Your task to perform on an android device: toggle airplane mode Image 0: 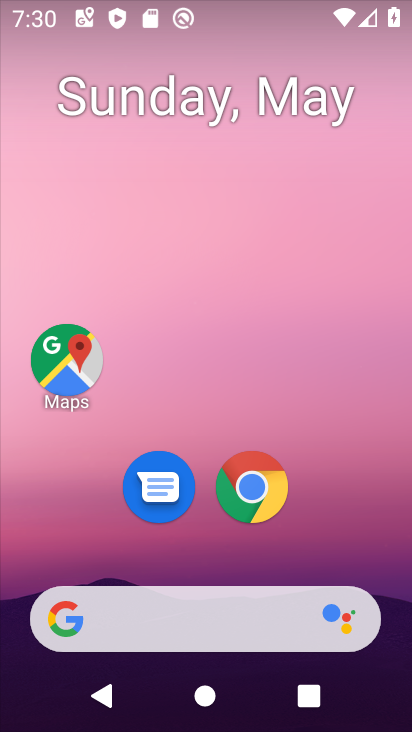
Step 0: drag from (366, 556) to (372, 204)
Your task to perform on an android device: toggle airplane mode Image 1: 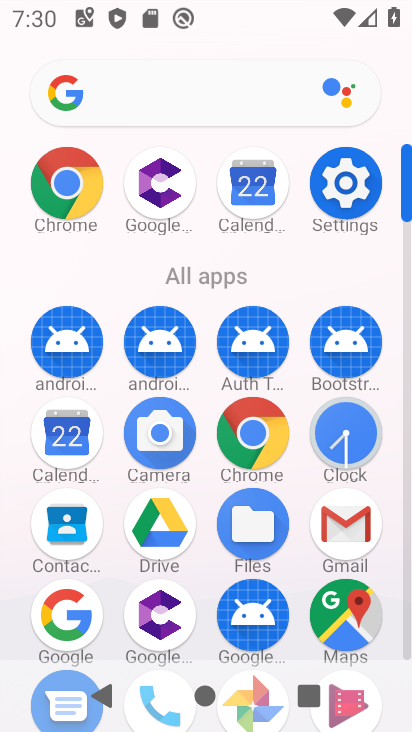
Step 1: click (356, 196)
Your task to perform on an android device: toggle airplane mode Image 2: 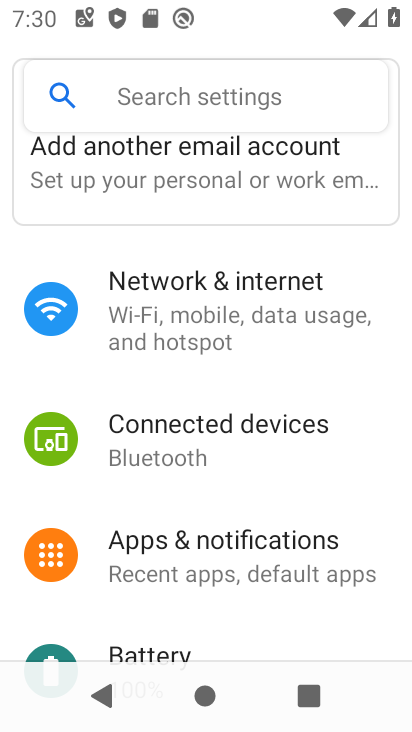
Step 2: drag from (390, 639) to (376, 541)
Your task to perform on an android device: toggle airplane mode Image 3: 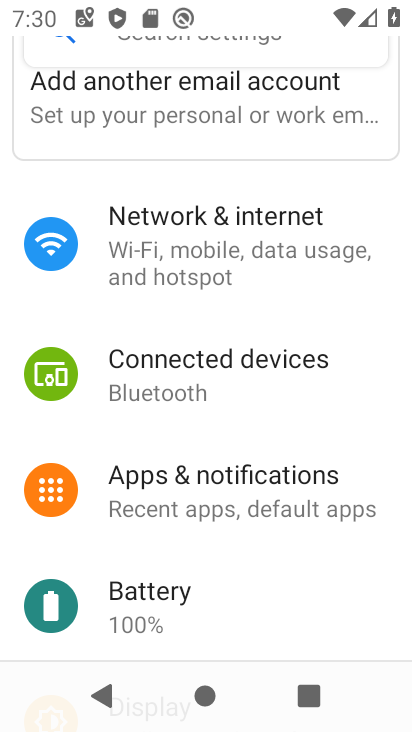
Step 3: drag from (374, 624) to (374, 478)
Your task to perform on an android device: toggle airplane mode Image 4: 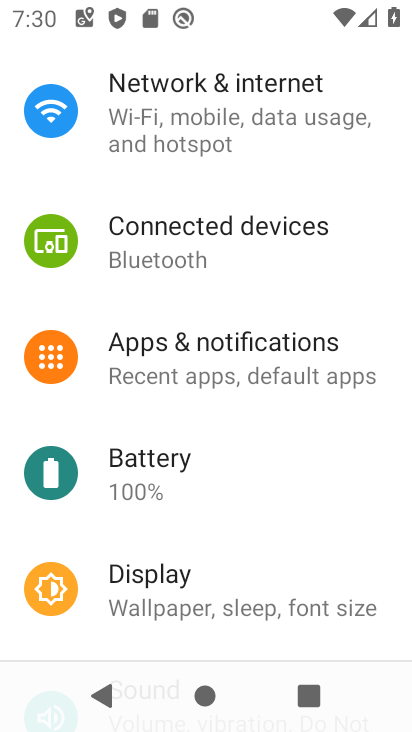
Step 4: drag from (386, 622) to (376, 482)
Your task to perform on an android device: toggle airplane mode Image 5: 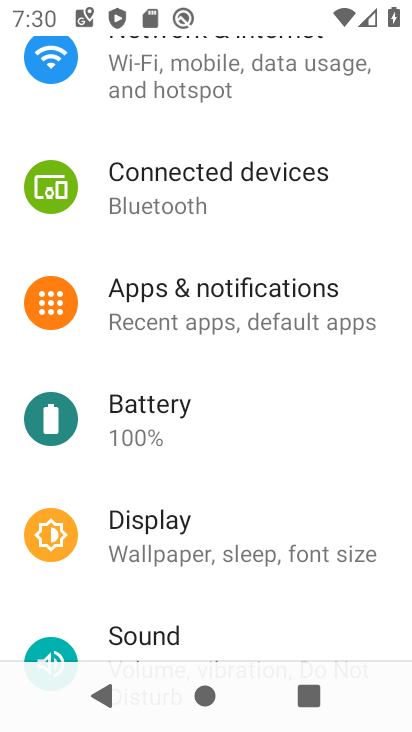
Step 5: drag from (371, 611) to (371, 507)
Your task to perform on an android device: toggle airplane mode Image 6: 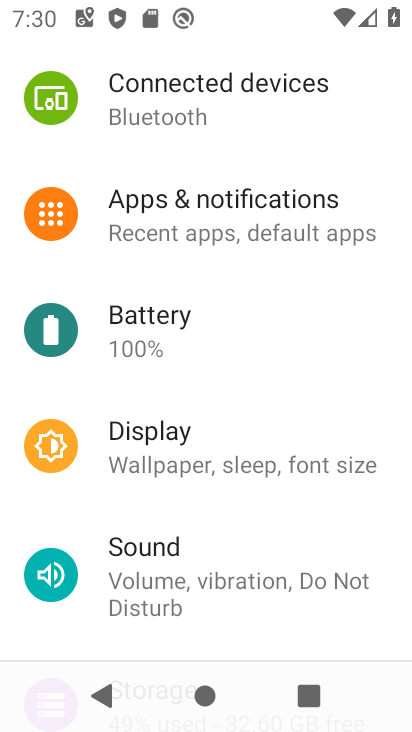
Step 6: drag from (386, 624) to (380, 517)
Your task to perform on an android device: toggle airplane mode Image 7: 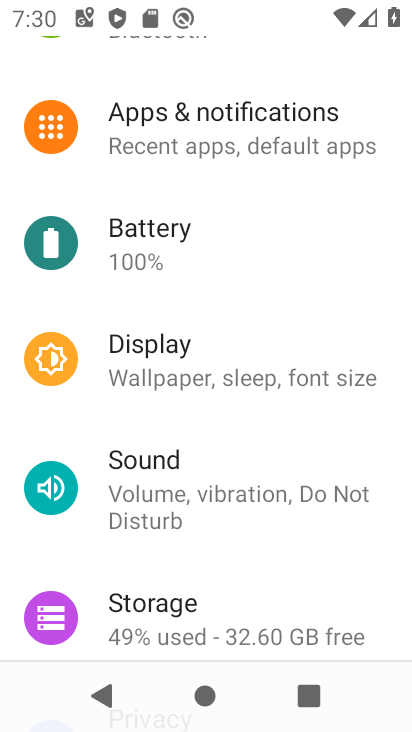
Step 7: drag from (376, 630) to (378, 514)
Your task to perform on an android device: toggle airplane mode Image 8: 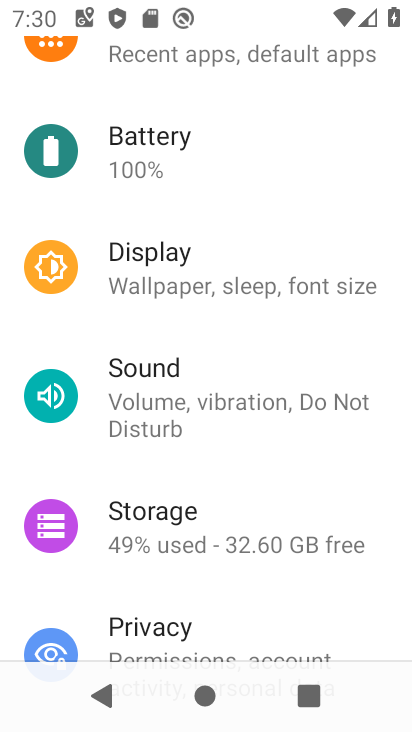
Step 8: drag from (372, 632) to (374, 526)
Your task to perform on an android device: toggle airplane mode Image 9: 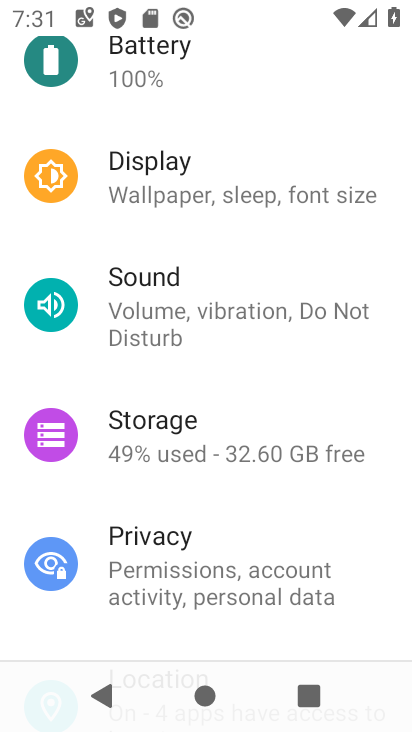
Step 9: drag from (364, 608) to (360, 507)
Your task to perform on an android device: toggle airplane mode Image 10: 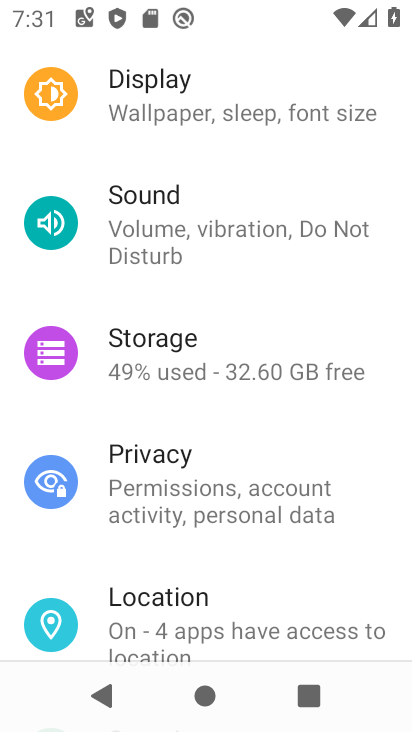
Step 10: drag from (372, 614) to (370, 497)
Your task to perform on an android device: toggle airplane mode Image 11: 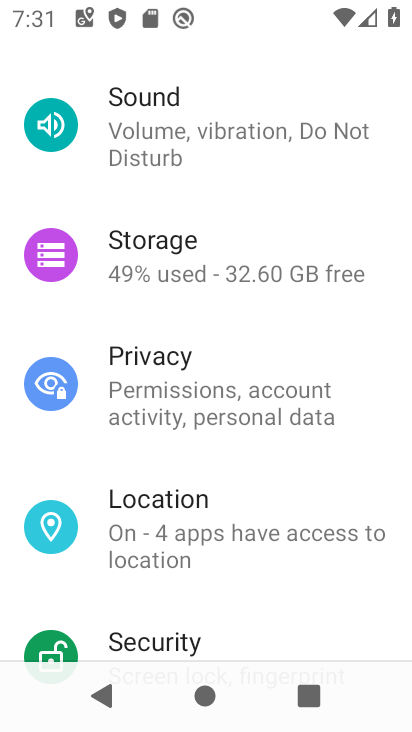
Step 11: drag from (378, 628) to (378, 511)
Your task to perform on an android device: toggle airplane mode Image 12: 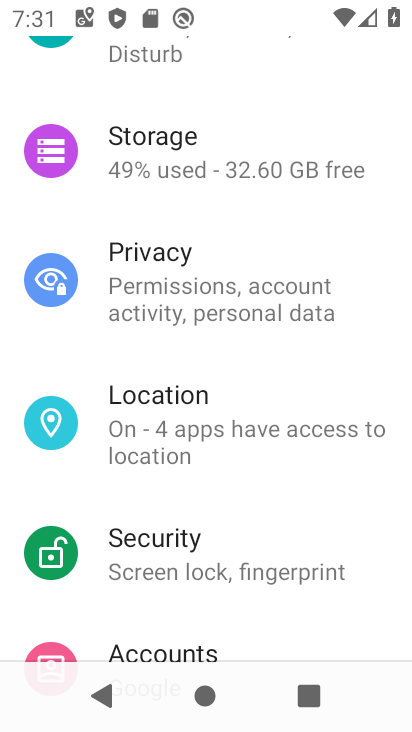
Step 12: drag from (379, 621) to (380, 449)
Your task to perform on an android device: toggle airplane mode Image 13: 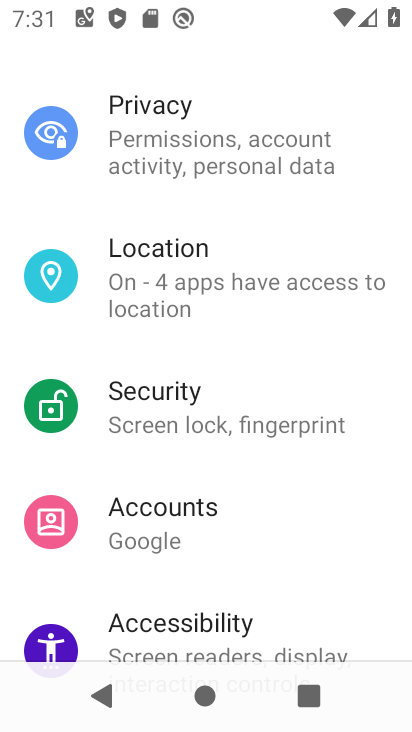
Step 13: drag from (354, 601) to (370, 393)
Your task to perform on an android device: toggle airplane mode Image 14: 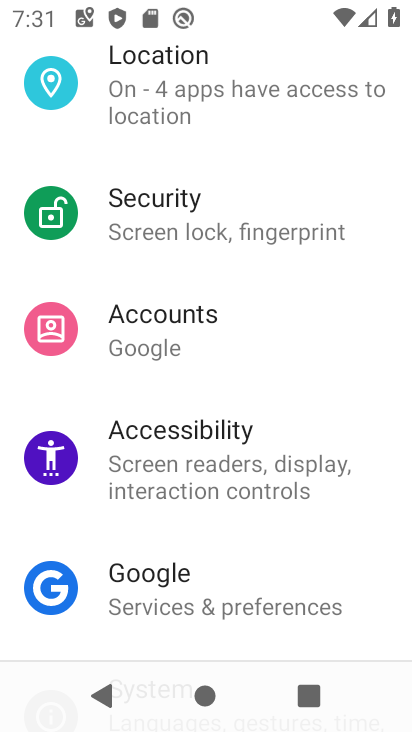
Step 14: drag from (362, 622) to (359, 444)
Your task to perform on an android device: toggle airplane mode Image 15: 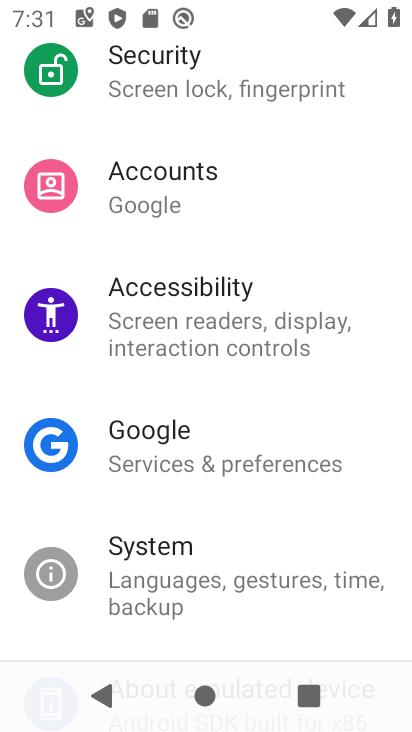
Step 15: drag from (344, 624) to (357, 474)
Your task to perform on an android device: toggle airplane mode Image 16: 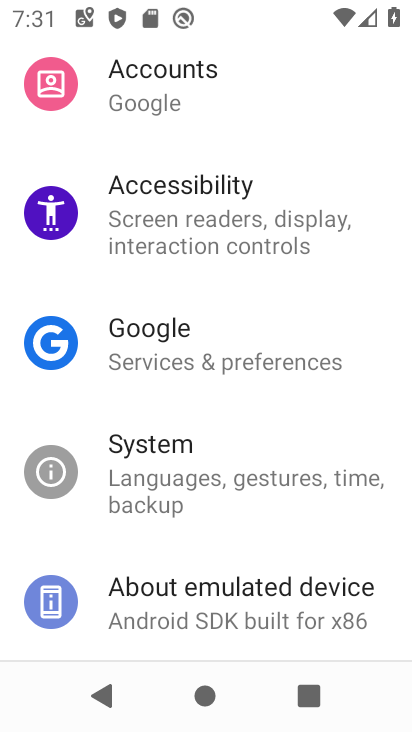
Step 16: drag from (359, 637) to (368, 481)
Your task to perform on an android device: toggle airplane mode Image 17: 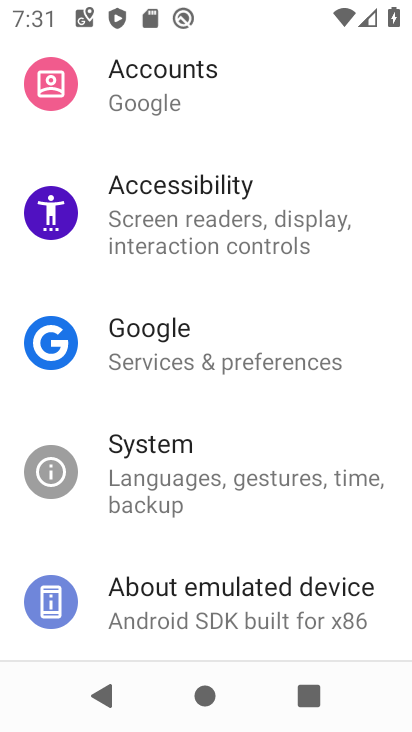
Step 17: drag from (372, 408) to (374, 571)
Your task to perform on an android device: toggle airplane mode Image 18: 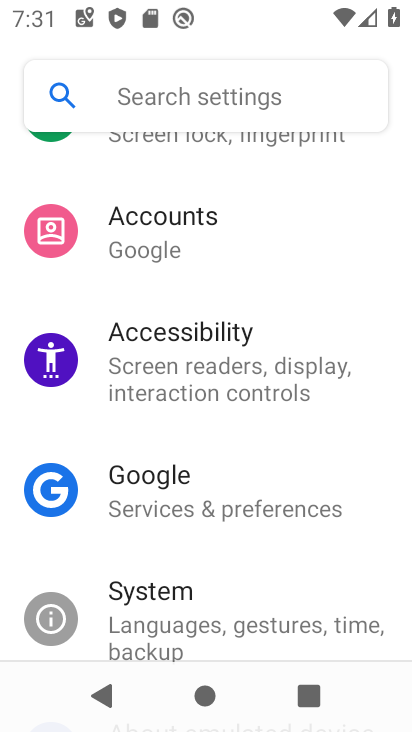
Step 18: drag from (371, 399) to (380, 534)
Your task to perform on an android device: toggle airplane mode Image 19: 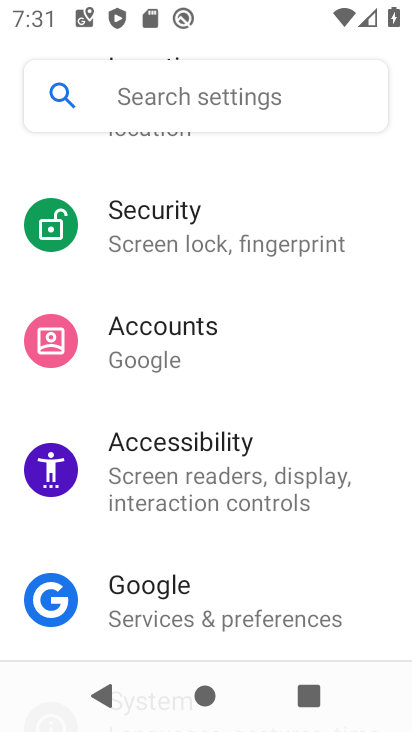
Step 19: drag from (380, 354) to (376, 506)
Your task to perform on an android device: toggle airplane mode Image 20: 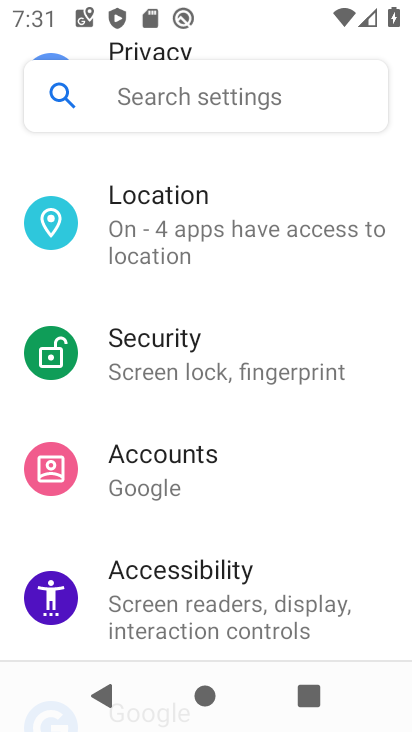
Step 20: drag from (373, 364) to (374, 444)
Your task to perform on an android device: toggle airplane mode Image 21: 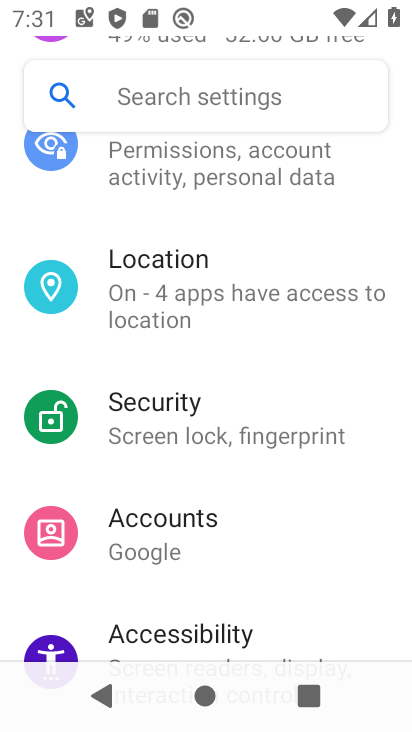
Step 21: drag from (372, 340) to (367, 445)
Your task to perform on an android device: toggle airplane mode Image 22: 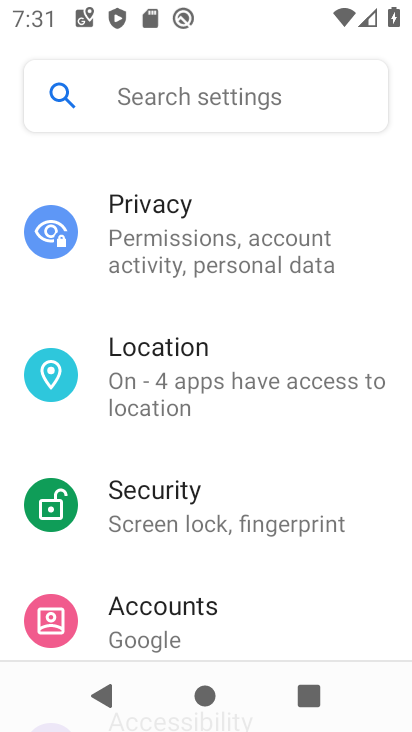
Step 22: drag from (372, 274) to (374, 437)
Your task to perform on an android device: toggle airplane mode Image 23: 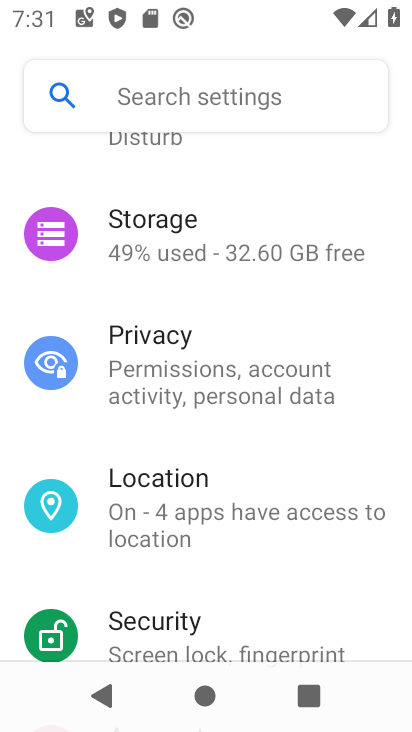
Step 23: drag from (380, 309) to (371, 383)
Your task to perform on an android device: toggle airplane mode Image 24: 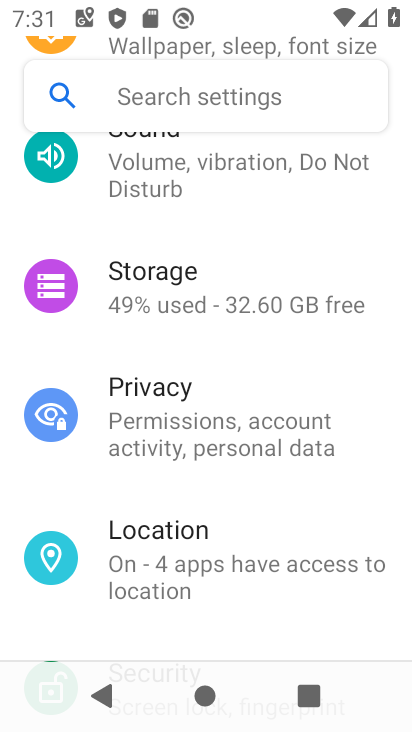
Step 24: drag from (365, 233) to (377, 466)
Your task to perform on an android device: toggle airplane mode Image 25: 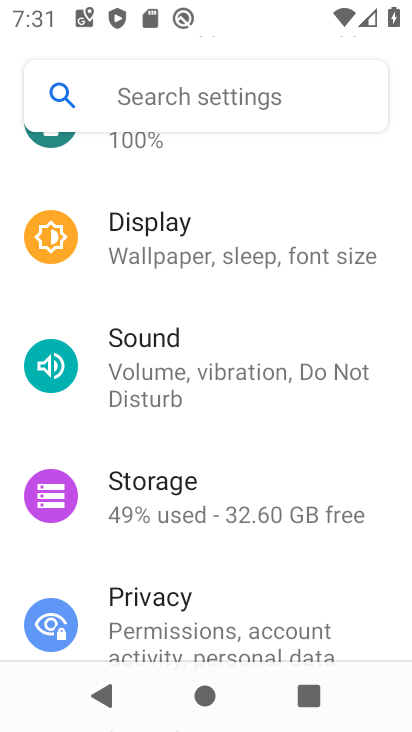
Step 25: drag from (375, 346) to (382, 452)
Your task to perform on an android device: toggle airplane mode Image 26: 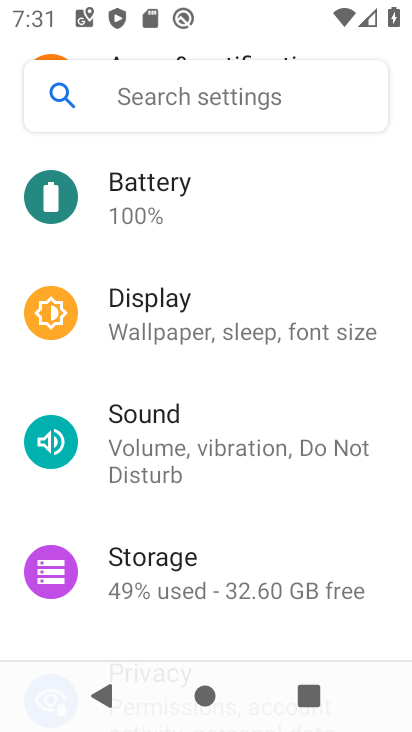
Step 26: drag from (374, 249) to (374, 390)
Your task to perform on an android device: toggle airplane mode Image 27: 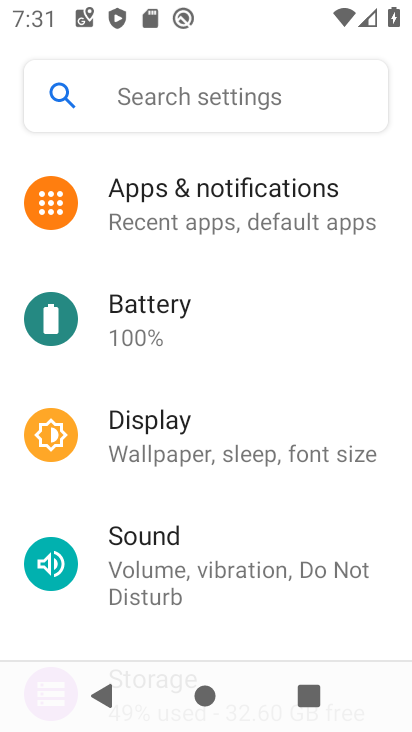
Step 27: drag from (386, 220) to (395, 335)
Your task to perform on an android device: toggle airplane mode Image 28: 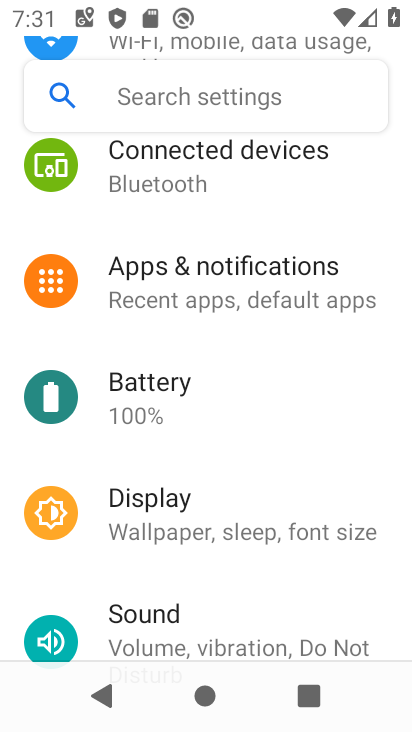
Step 28: drag from (387, 205) to (392, 313)
Your task to perform on an android device: toggle airplane mode Image 29: 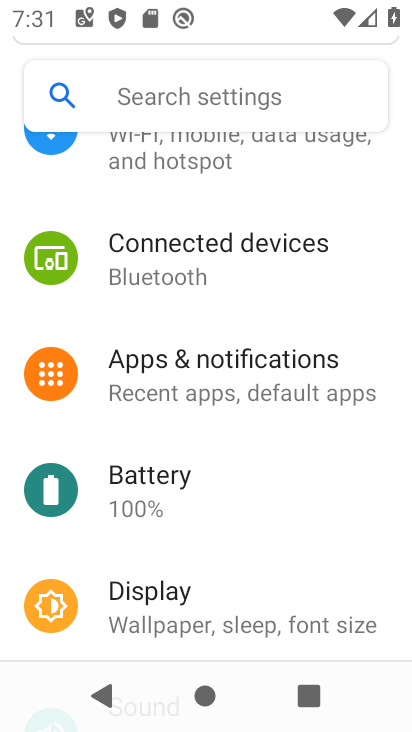
Step 29: drag from (375, 227) to (382, 365)
Your task to perform on an android device: toggle airplane mode Image 30: 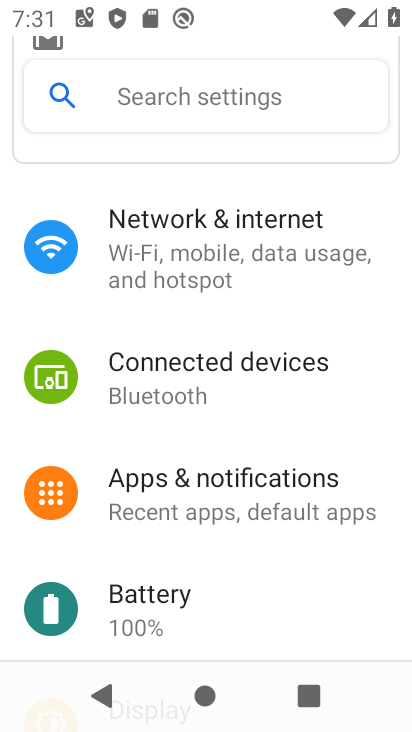
Step 30: click (308, 250)
Your task to perform on an android device: toggle airplane mode Image 31: 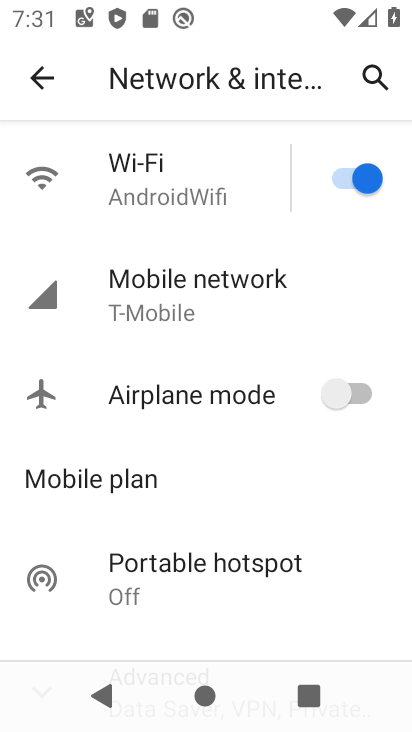
Step 31: click (361, 392)
Your task to perform on an android device: toggle airplane mode Image 32: 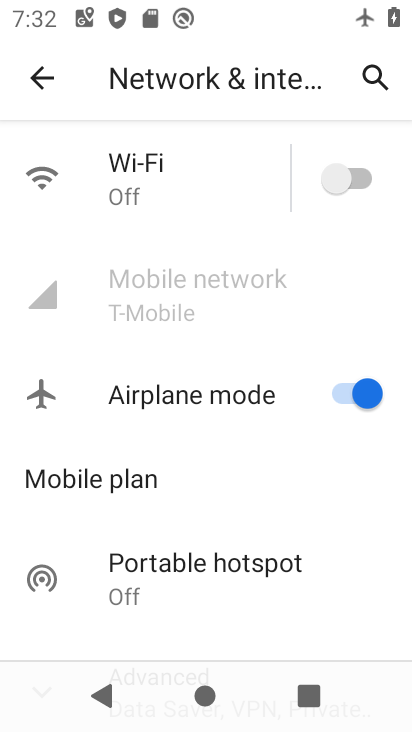
Step 32: task complete